Your task to perform on an android device: Open Yahoo.com Image 0: 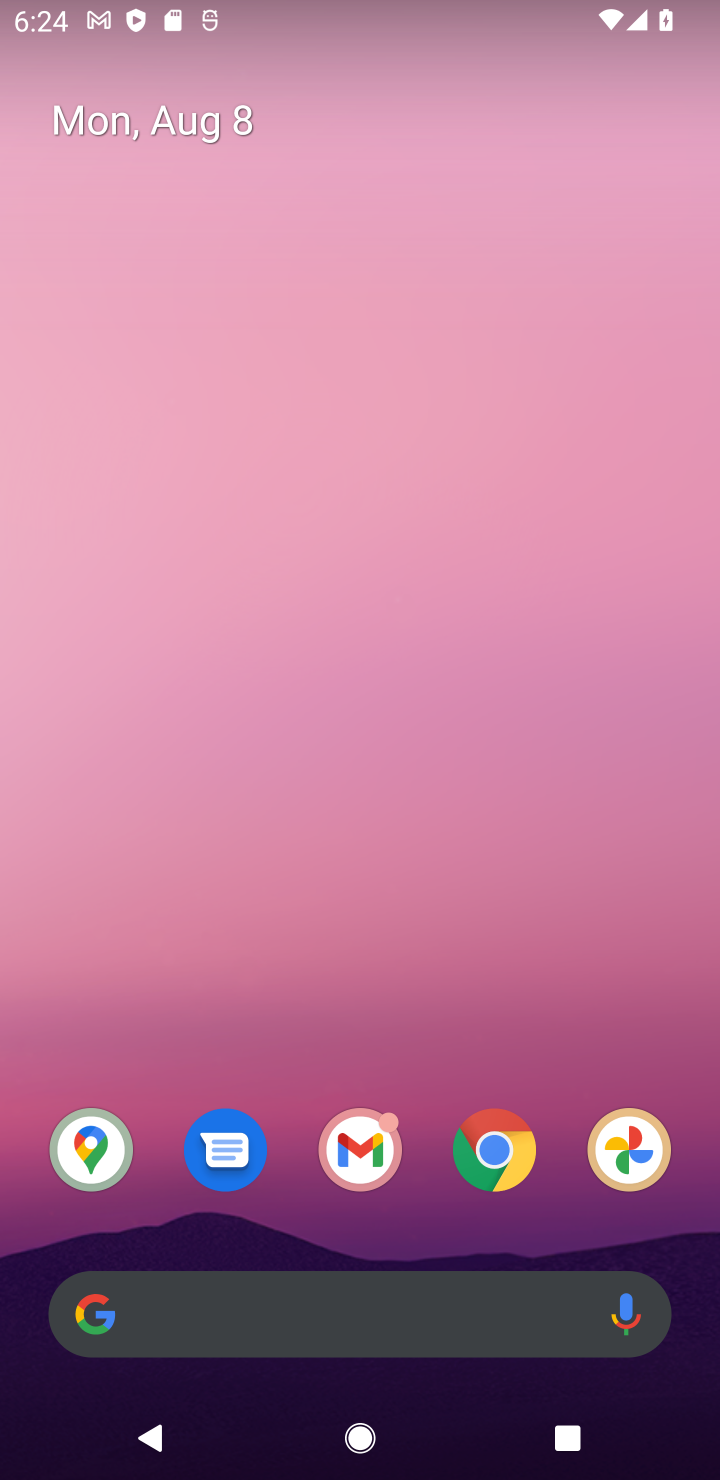
Step 0: click (524, 1184)
Your task to perform on an android device: Open Yahoo.com Image 1: 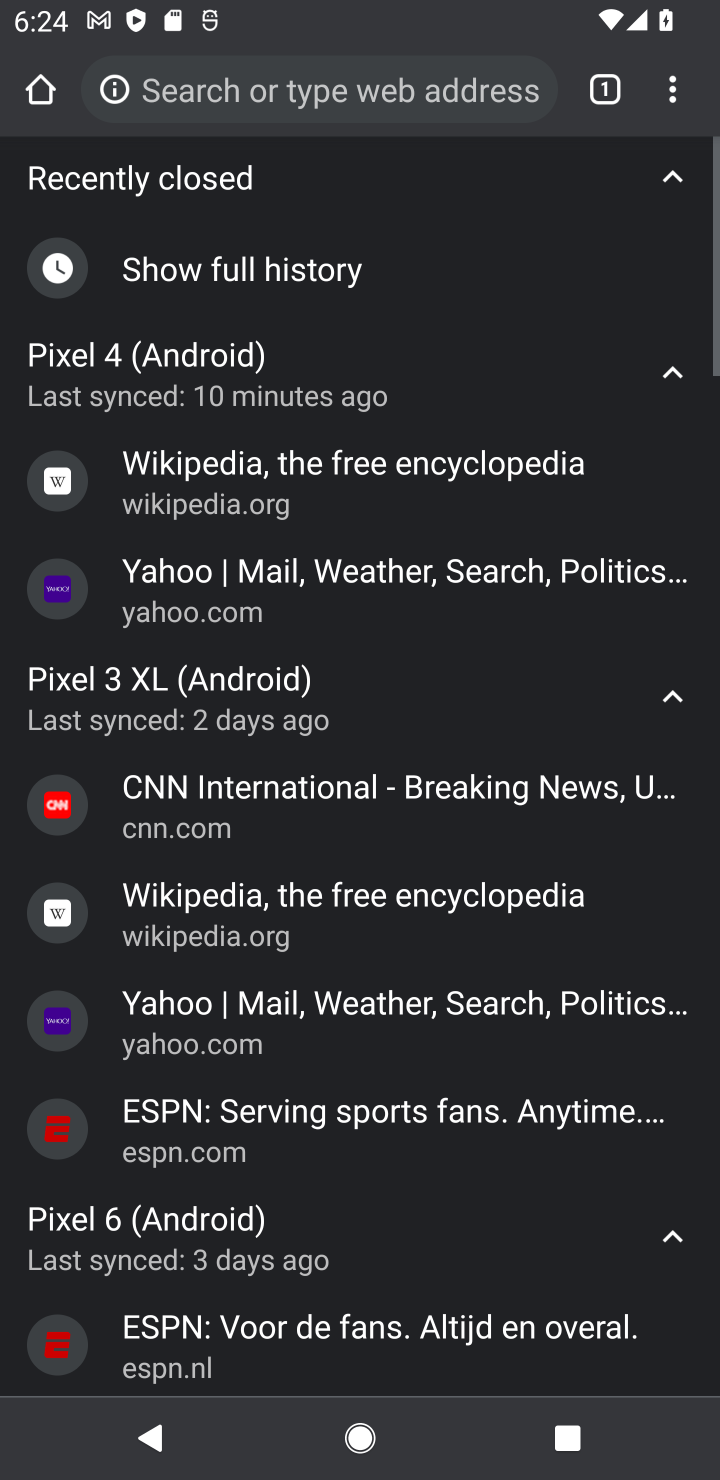
Step 1: click (369, 89)
Your task to perform on an android device: Open Yahoo.com Image 2: 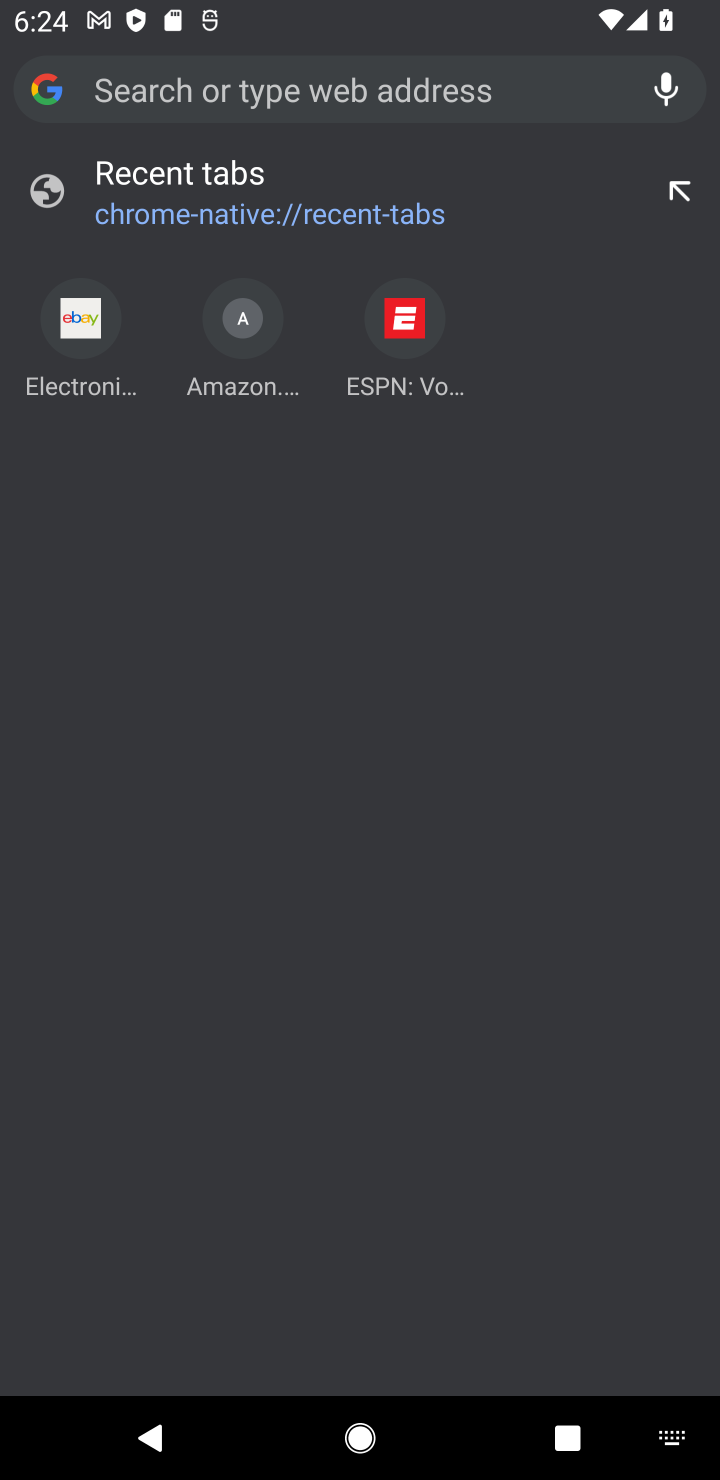
Step 2: type "yahoo.com"
Your task to perform on an android device: Open Yahoo.com Image 3: 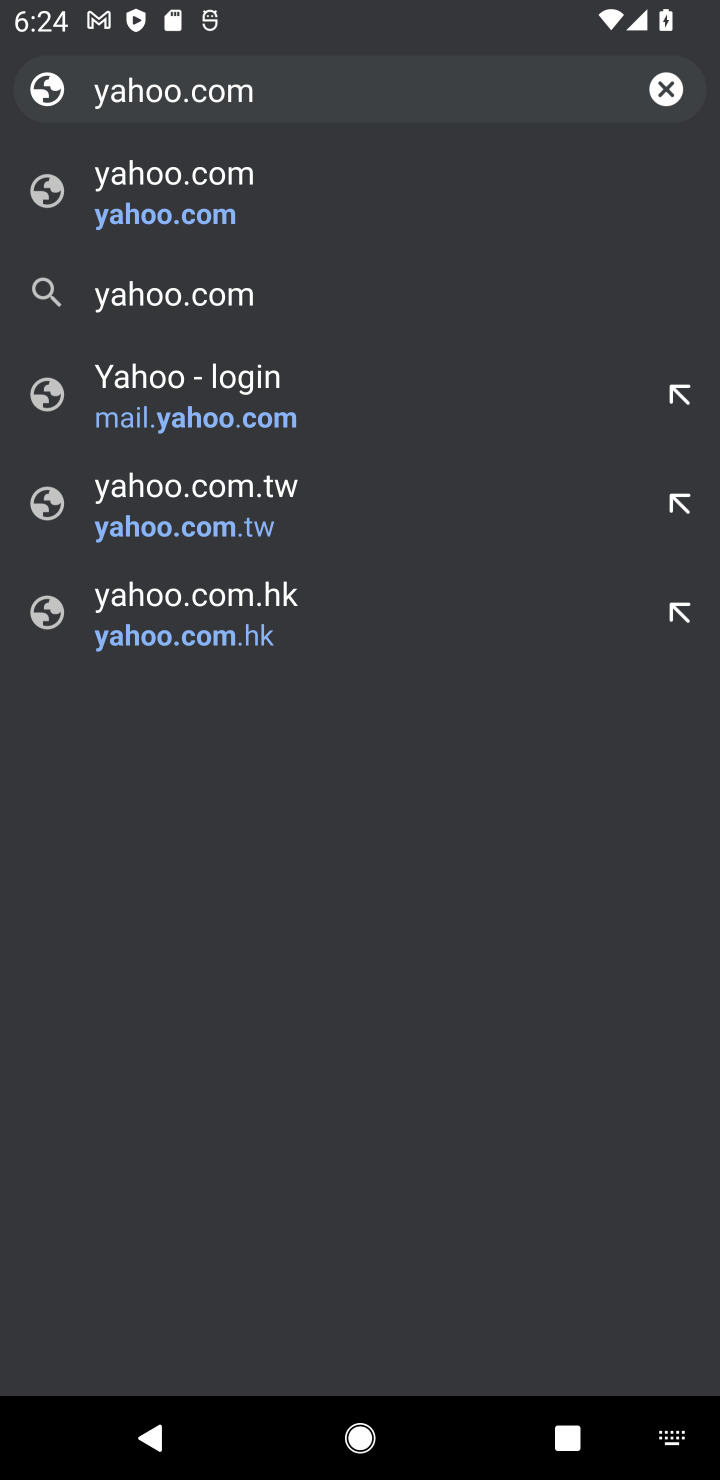
Step 3: click (203, 219)
Your task to perform on an android device: Open Yahoo.com Image 4: 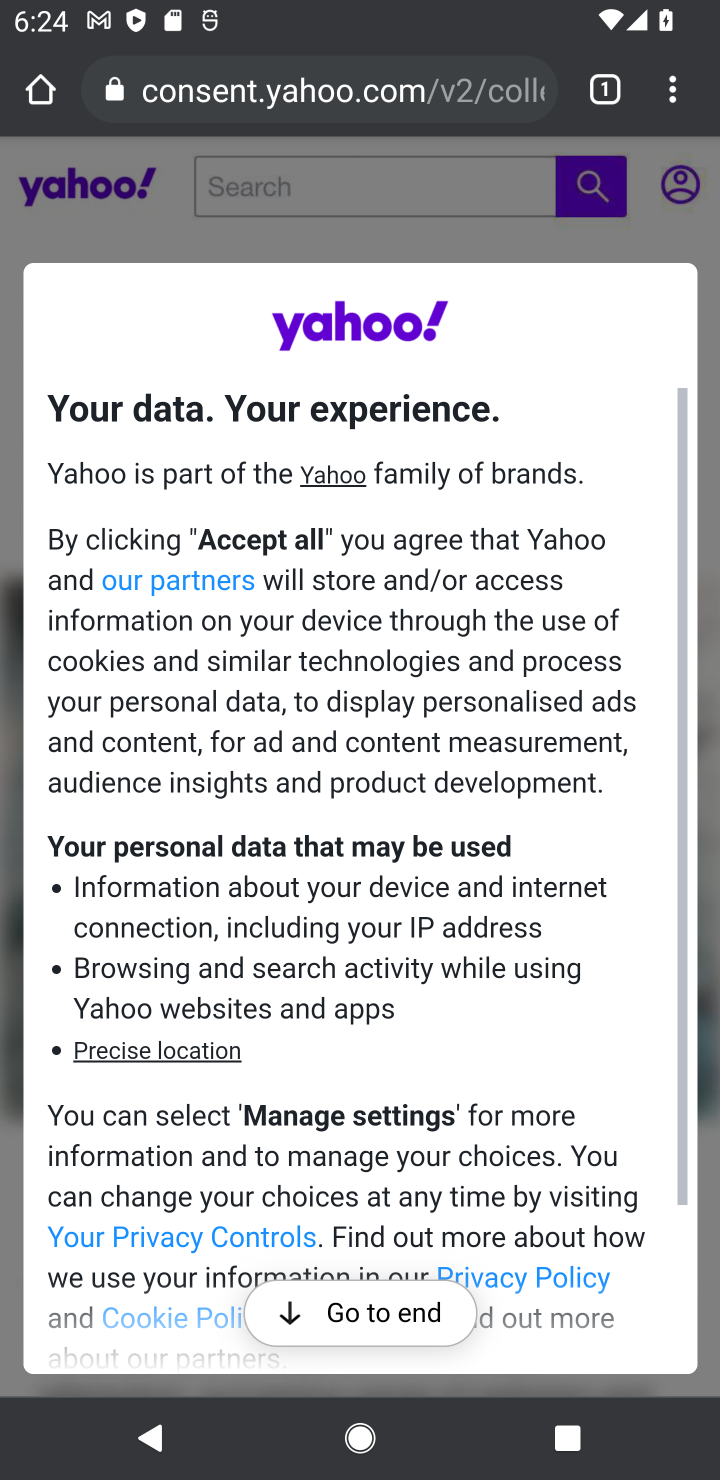
Step 4: task complete